Your task to perform on an android device: What is the recent news? Image 0: 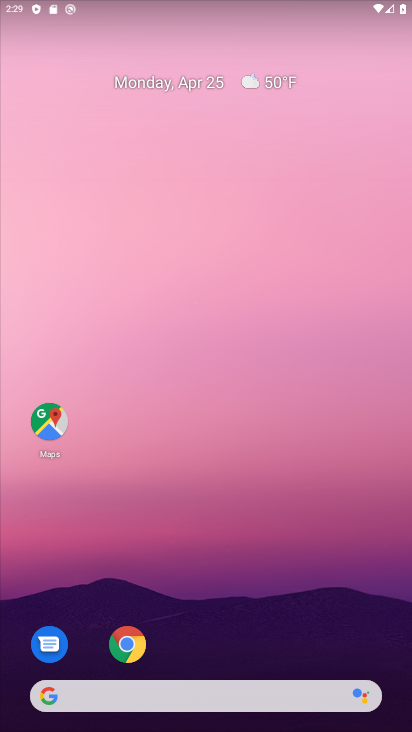
Step 0: drag from (167, 637) to (196, 256)
Your task to perform on an android device: What is the recent news? Image 1: 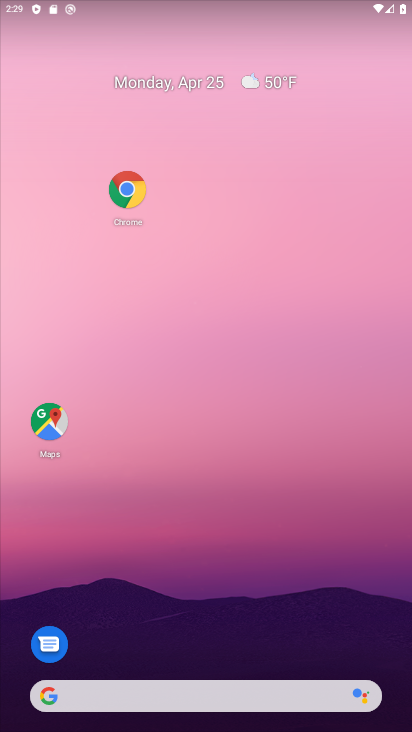
Step 1: drag from (158, 653) to (222, 141)
Your task to perform on an android device: What is the recent news? Image 2: 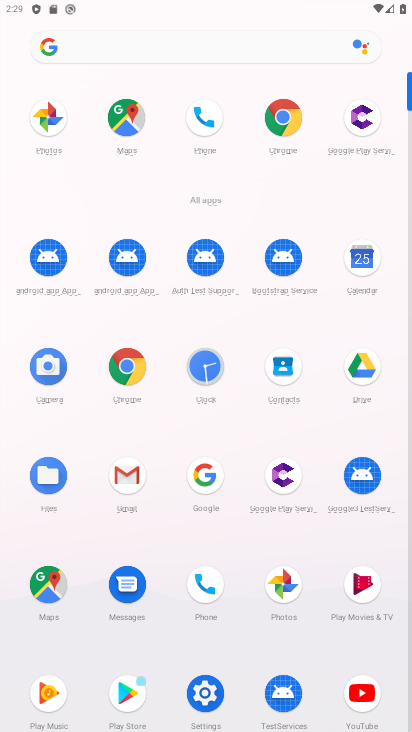
Step 2: click (130, 368)
Your task to perform on an android device: What is the recent news? Image 3: 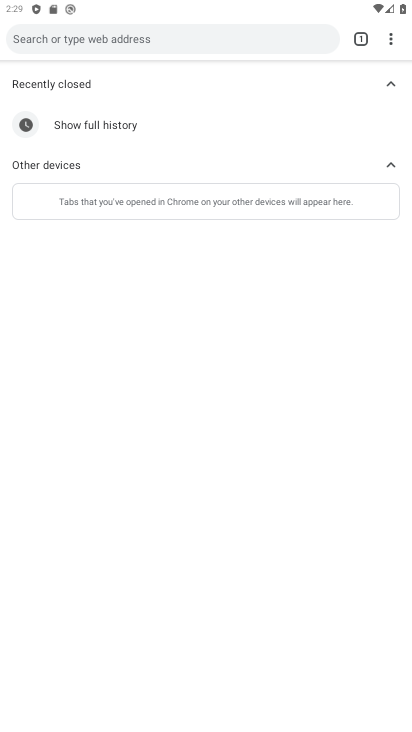
Step 3: click (84, 38)
Your task to perform on an android device: What is the recent news? Image 4: 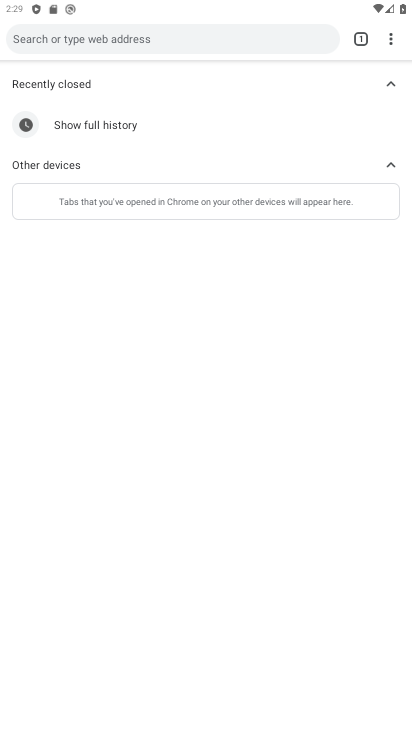
Step 4: click (39, 35)
Your task to perform on an android device: What is the recent news? Image 5: 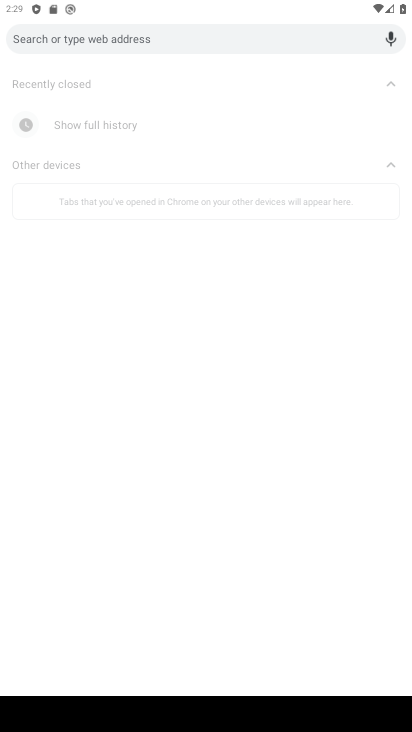
Step 5: type "recent news"
Your task to perform on an android device: What is the recent news? Image 6: 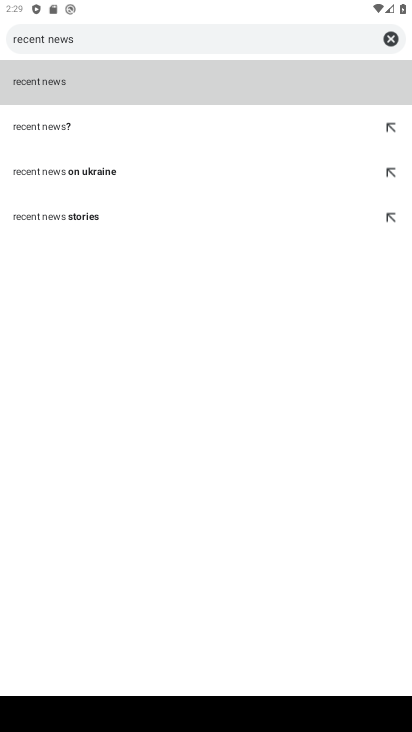
Step 6: click (107, 87)
Your task to perform on an android device: What is the recent news? Image 7: 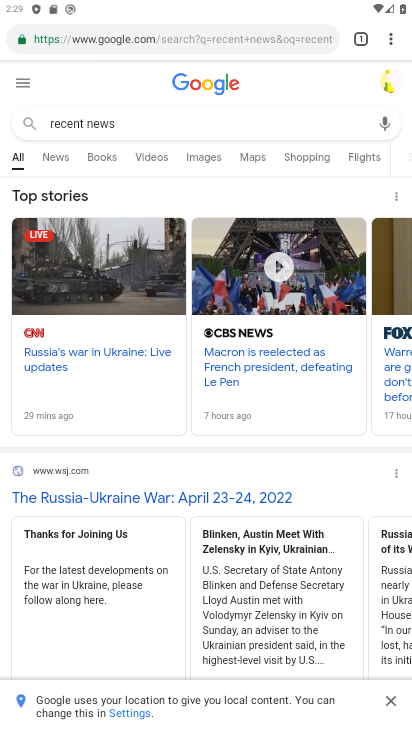
Step 7: task complete